Your task to perform on an android device: find snoozed emails in the gmail app Image 0: 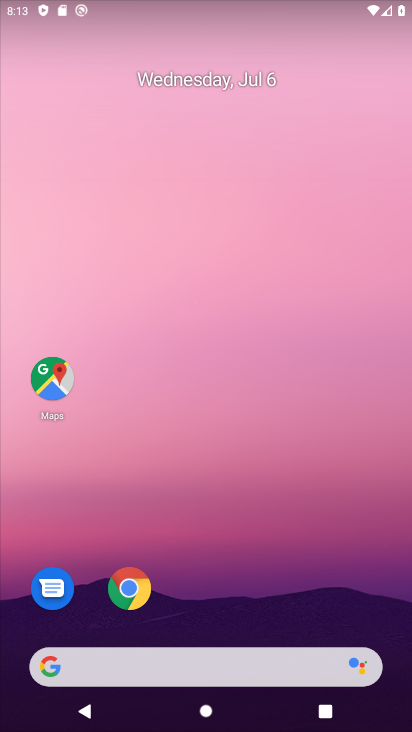
Step 0: drag from (265, 585) to (266, 297)
Your task to perform on an android device: find snoozed emails in the gmail app Image 1: 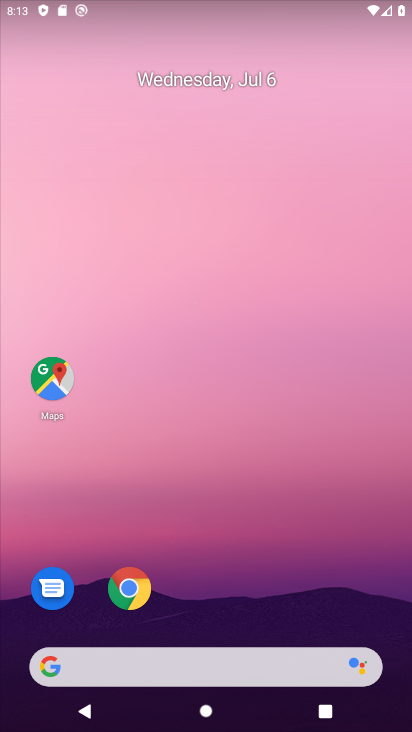
Step 1: drag from (186, 630) to (199, 289)
Your task to perform on an android device: find snoozed emails in the gmail app Image 2: 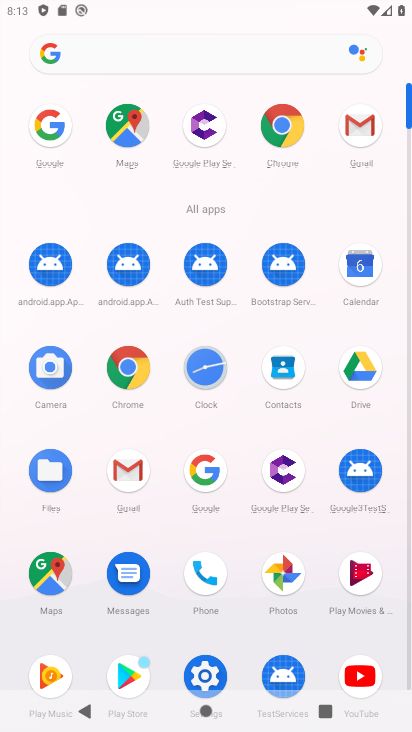
Step 2: click (357, 122)
Your task to perform on an android device: find snoozed emails in the gmail app Image 3: 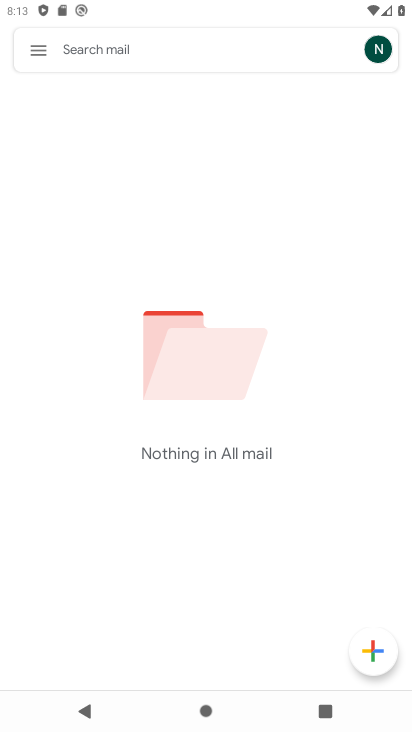
Step 3: click (43, 45)
Your task to perform on an android device: find snoozed emails in the gmail app Image 4: 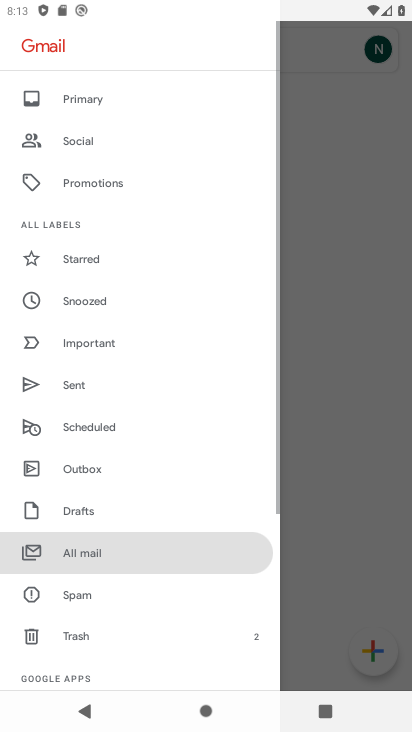
Step 4: click (111, 304)
Your task to perform on an android device: find snoozed emails in the gmail app Image 5: 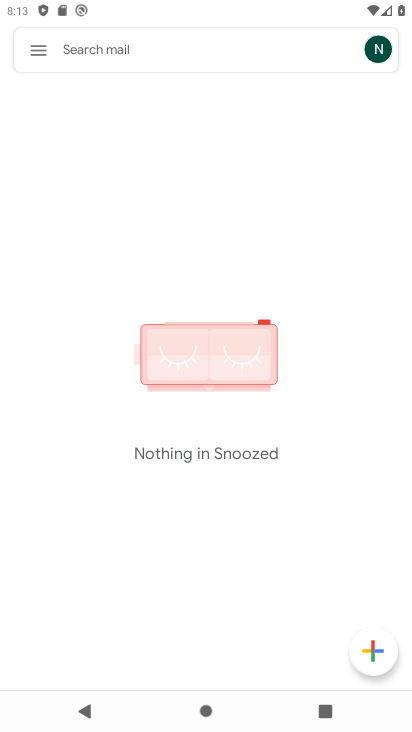
Step 5: task complete